Your task to perform on an android device: turn off location Image 0: 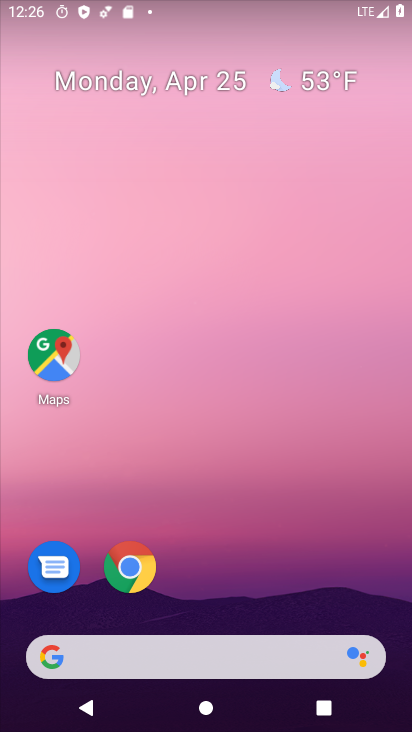
Step 0: drag from (302, 567) to (330, 79)
Your task to perform on an android device: turn off location Image 1: 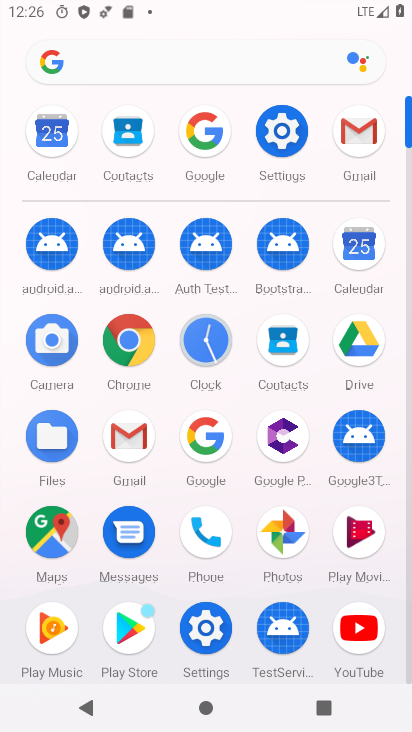
Step 1: click (285, 130)
Your task to perform on an android device: turn off location Image 2: 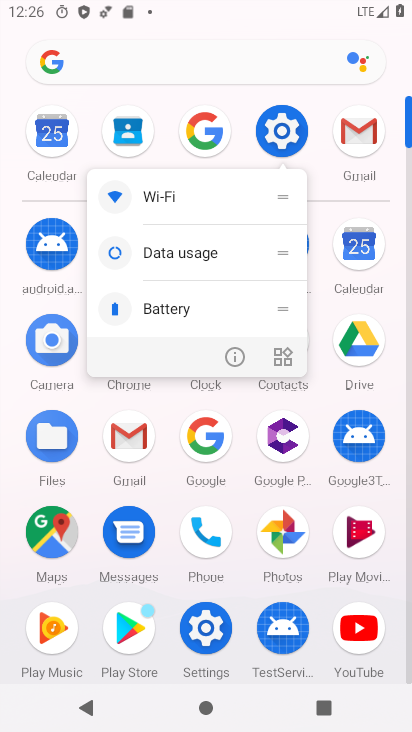
Step 2: click (285, 130)
Your task to perform on an android device: turn off location Image 3: 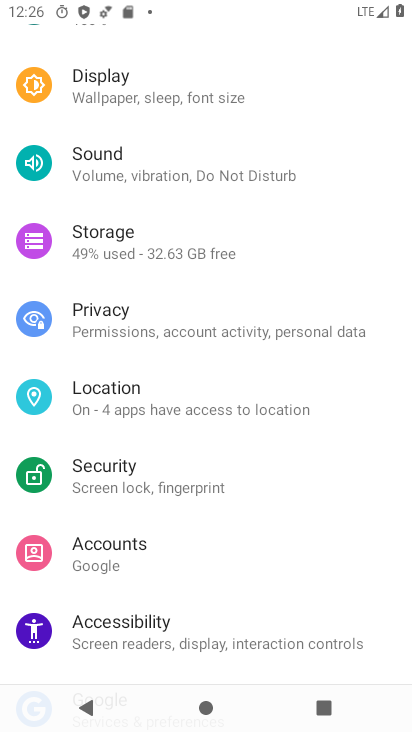
Step 3: click (163, 385)
Your task to perform on an android device: turn off location Image 4: 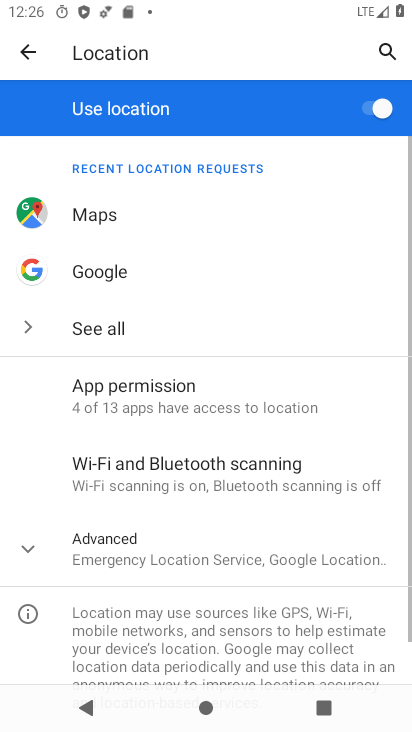
Step 4: click (367, 112)
Your task to perform on an android device: turn off location Image 5: 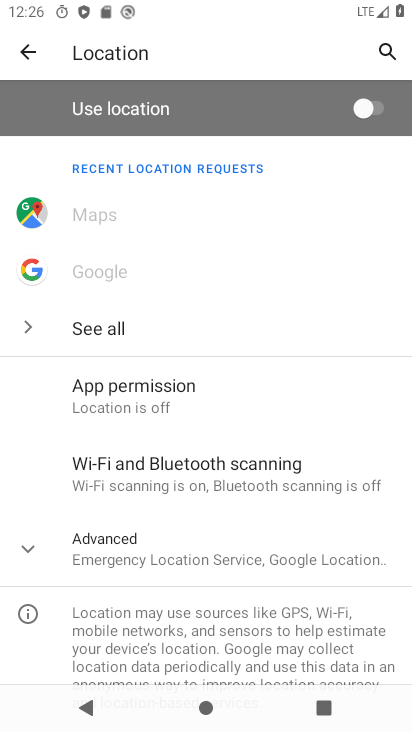
Step 5: task complete